Your task to perform on an android device: Go to calendar. Show me events next week Image 0: 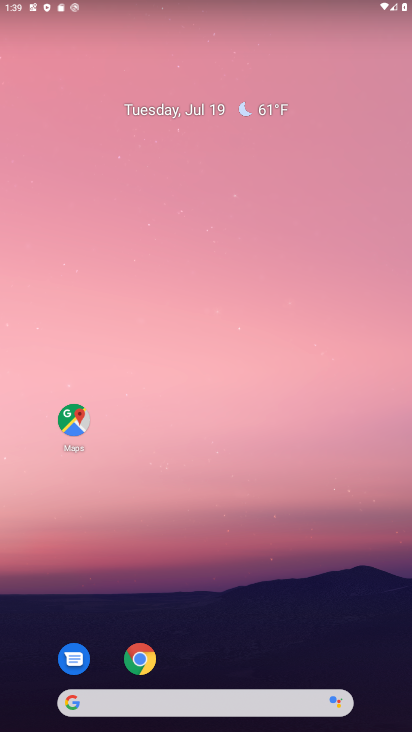
Step 0: click (341, 19)
Your task to perform on an android device: Go to calendar. Show me events next week Image 1: 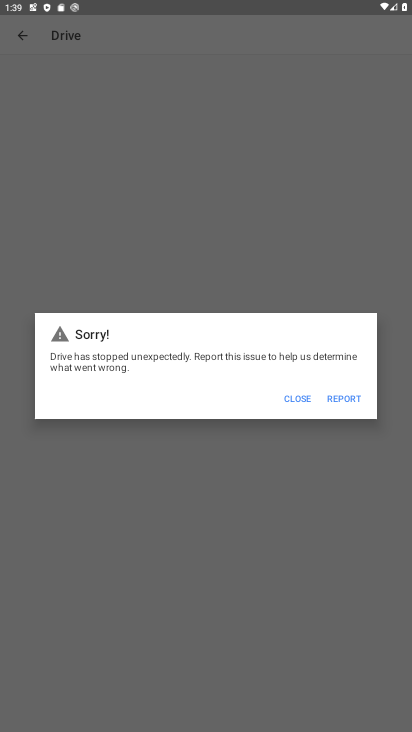
Step 1: drag from (353, 661) to (333, 38)
Your task to perform on an android device: Go to calendar. Show me events next week Image 2: 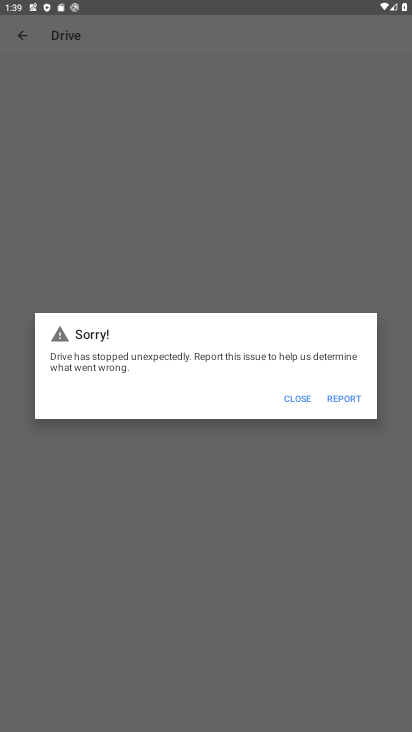
Step 2: press home button
Your task to perform on an android device: Go to calendar. Show me events next week Image 3: 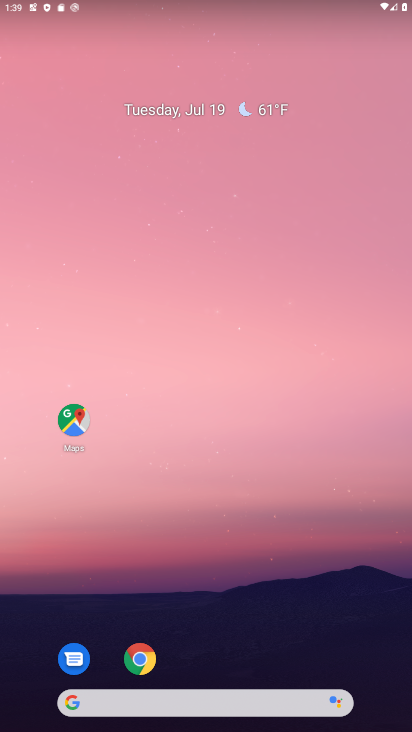
Step 3: drag from (272, 629) to (174, 72)
Your task to perform on an android device: Go to calendar. Show me events next week Image 4: 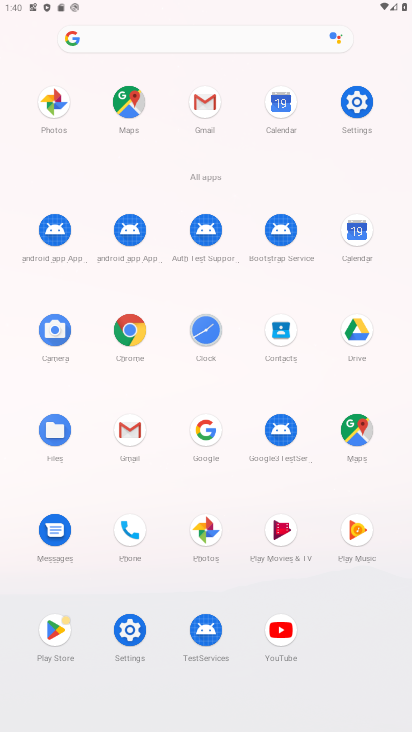
Step 4: click (359, 234)
Your task to perform on an android device: Go to calendar. Show me events next week Image 5: 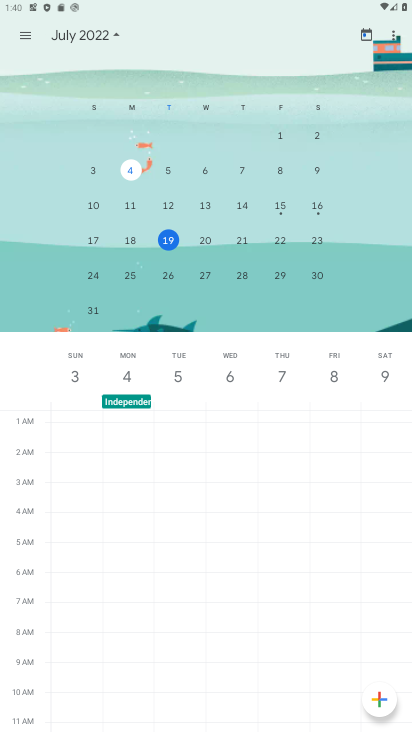
Step 5: click (74, 39)
Your task to perform on an android device: Go to calendar. Show me events next week Image 6: 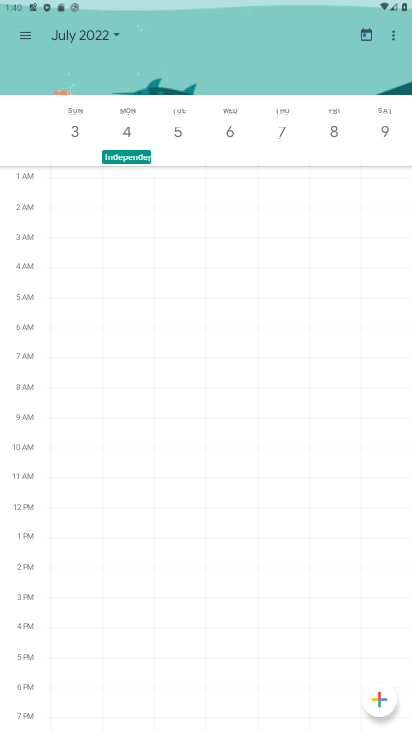
Step 6: click (78, 30)
Your task to perform on an android device: Go to calendar. Show me events next week Image 7: 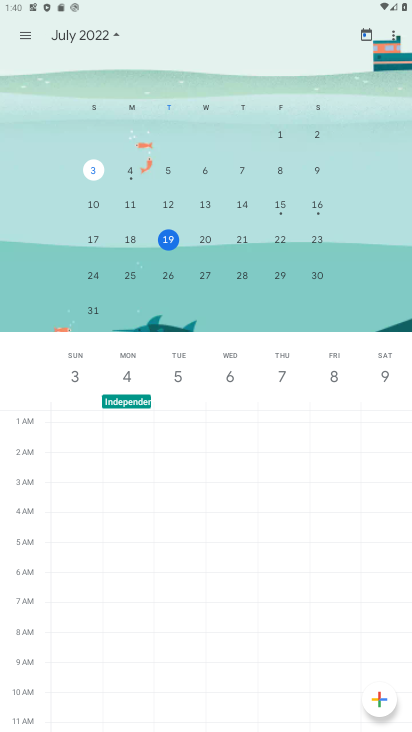
Step 7: drag from (125, 185) to (411, 187)
Your task to perform on an android device: Go to calendar. Show me events next week Image 8: 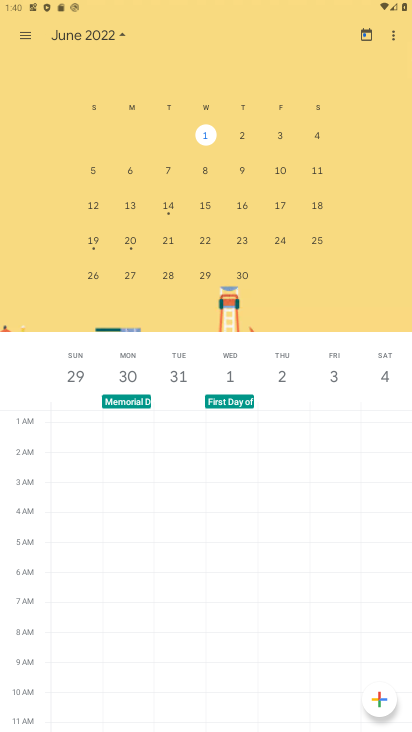
Step 8: drag from (376, 226) to (1, 185)
Your task to perform on an android device: Go to calendar. Show me events next week Image 9: 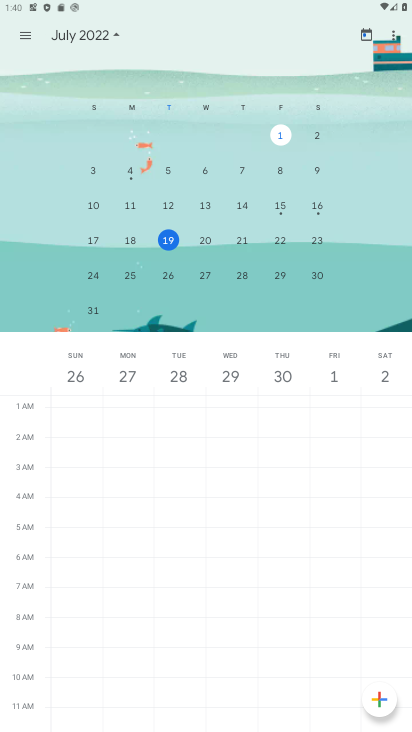
Step 9: click (177, 277)
Your task to perform on an android device: Go to calendar. Show me events next week Image 10: 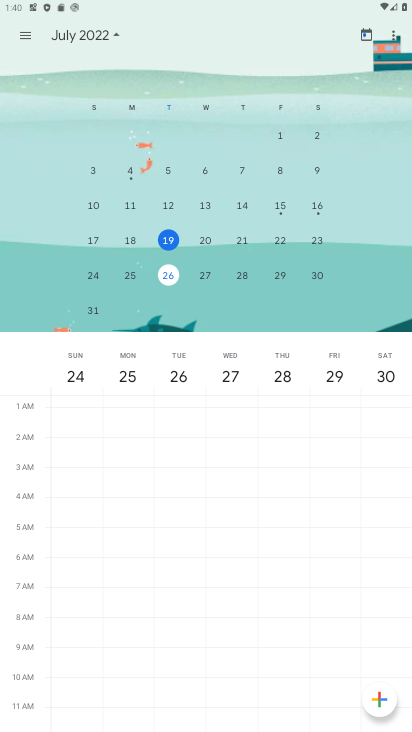
Step 10: task complete